Your task to perform on an android device: What's on my calendar today? Image 0: 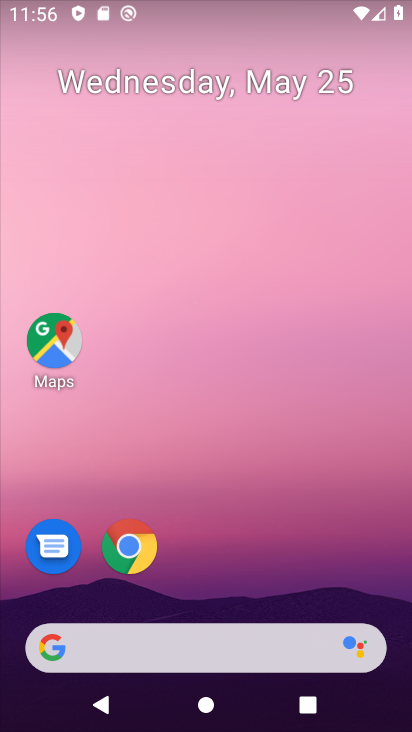
Step 0: drag from (402, 629) to (268, 102)
Your task to perform on an android device: What's on my calendar today? Image 1: 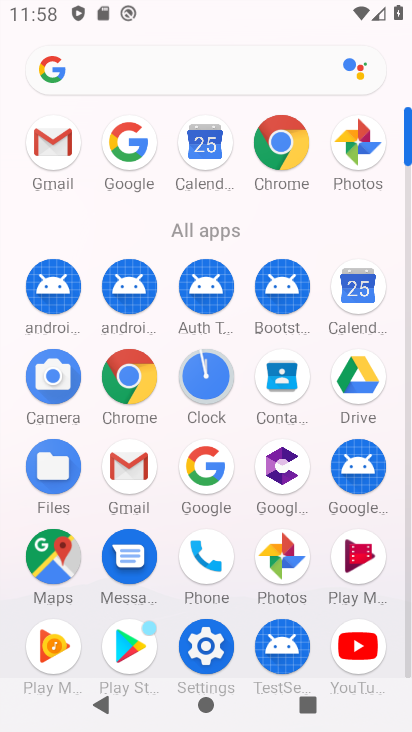
Step 1: click (388, 290)
Your task to perform on an android device: What's on my calendar today? Image 2: 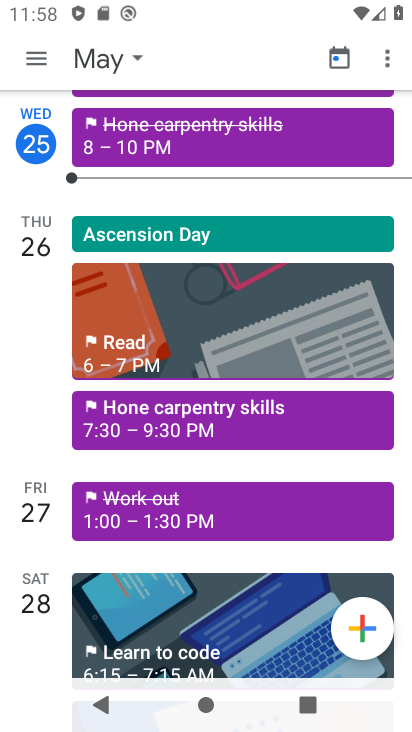
Step 2: click (106, 67)
Your task to perform on an android device: What's on my calendar today? Image 3: 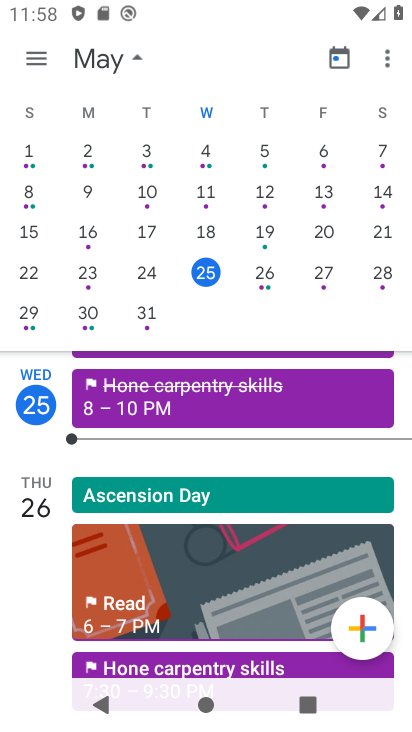
Step 3: click (262, 282)
Your task to perform on an android device: What's on my calendar today? Image 4: 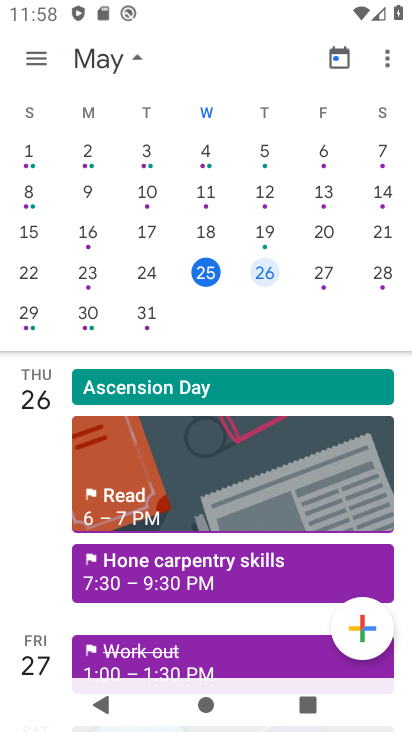
Step 4: click (282, 389)
Your task to perform on an android device: What's on my calendar today? Image 5: 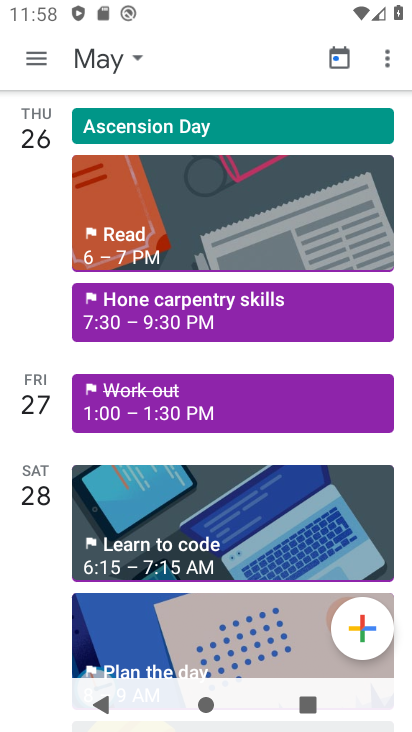
Step 5: click (255, 294)
Your task to perform on an android device: What's on my calendar today? Image 6: 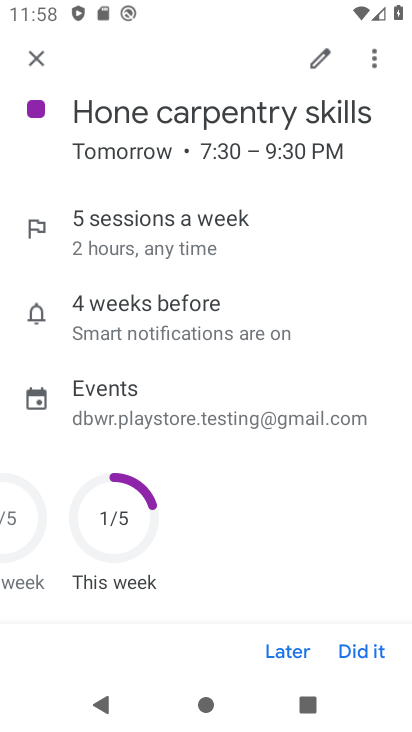
Step 6: task complete